Your task to perform on an android device: uninstall "AliExpress" Image 0: 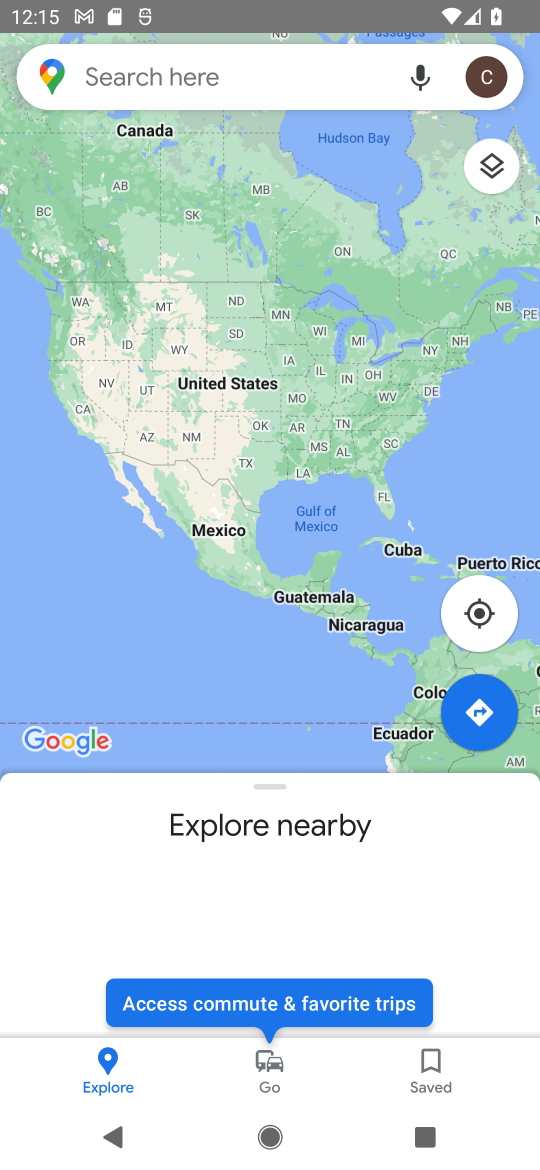
Step 0: press home button
Your task to perform on an android device: uninstall "AliExpress" Image 1: 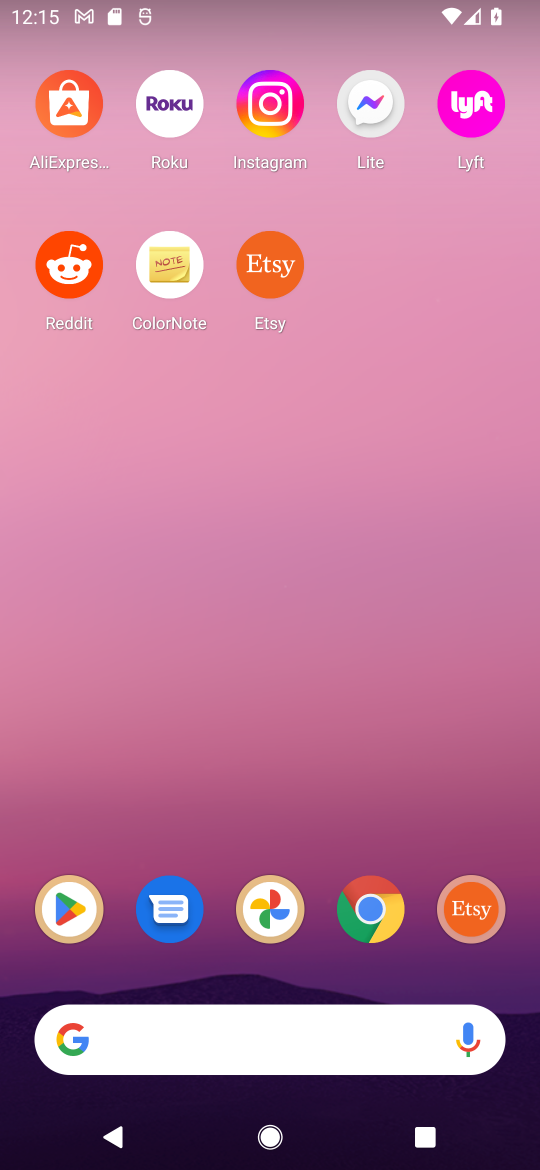
Step 1: click (65, 919)
Your task to perform on an android device: uninstall "AliExpress" Image 2: 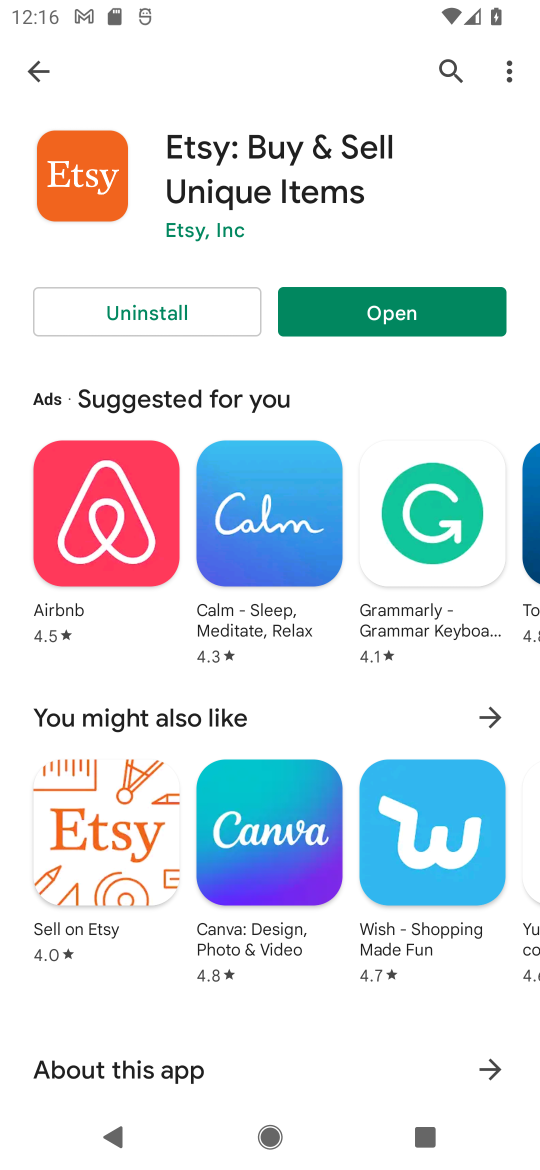
Step 2: press home button
Your task to perform on an android device: uninstall "AliExpress" Image 3: 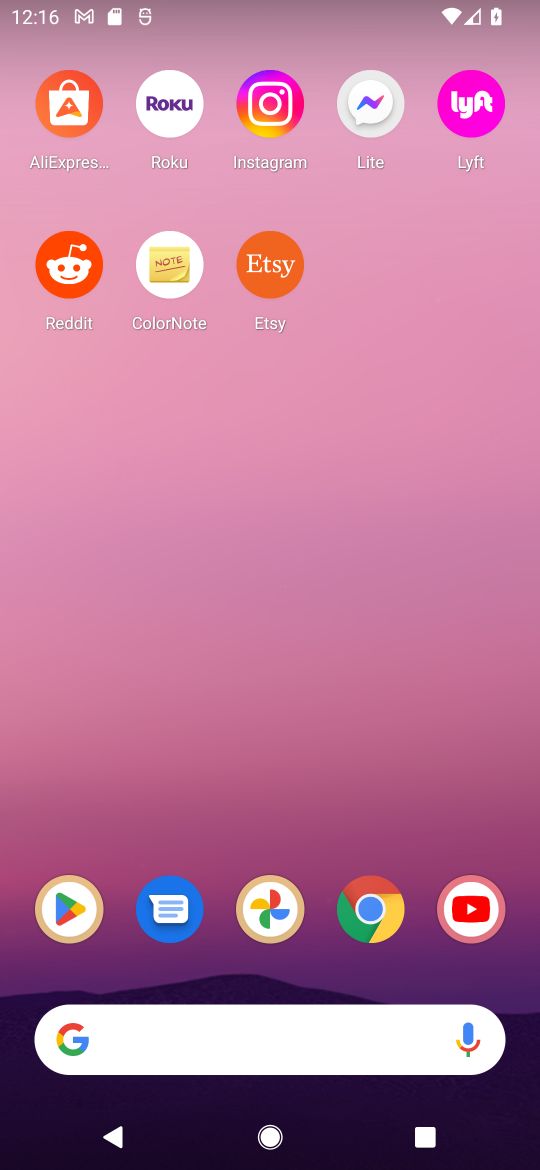
Step 3: click (67, 910)
Your task to perform on an android device: uninstall "AliExpress" Image 4: 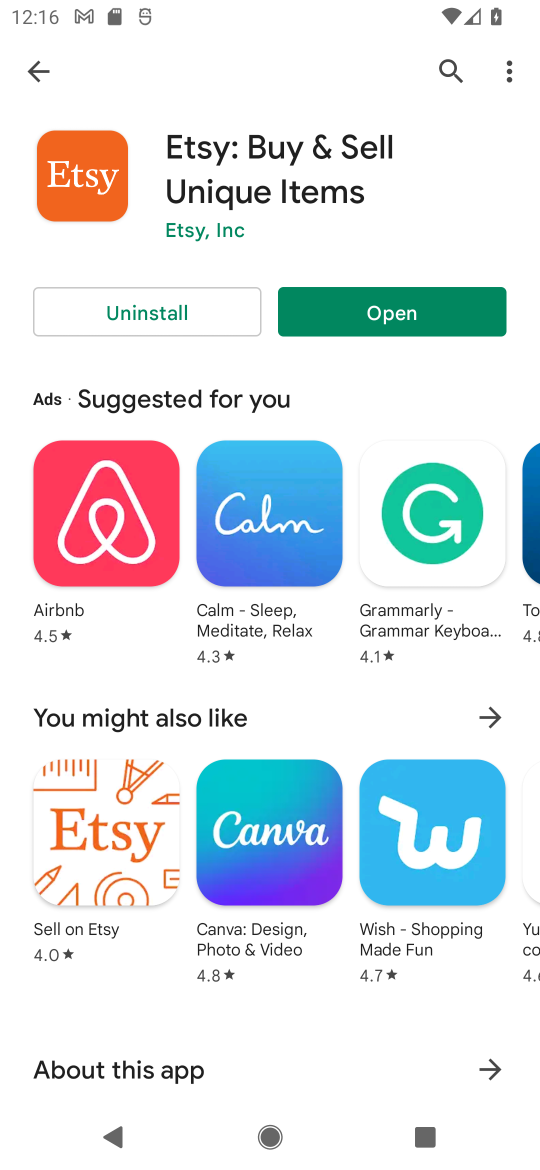
Step 4: click (28, 79)
Your task to perform on an android device: uninstall "AliExpress" Image 5: 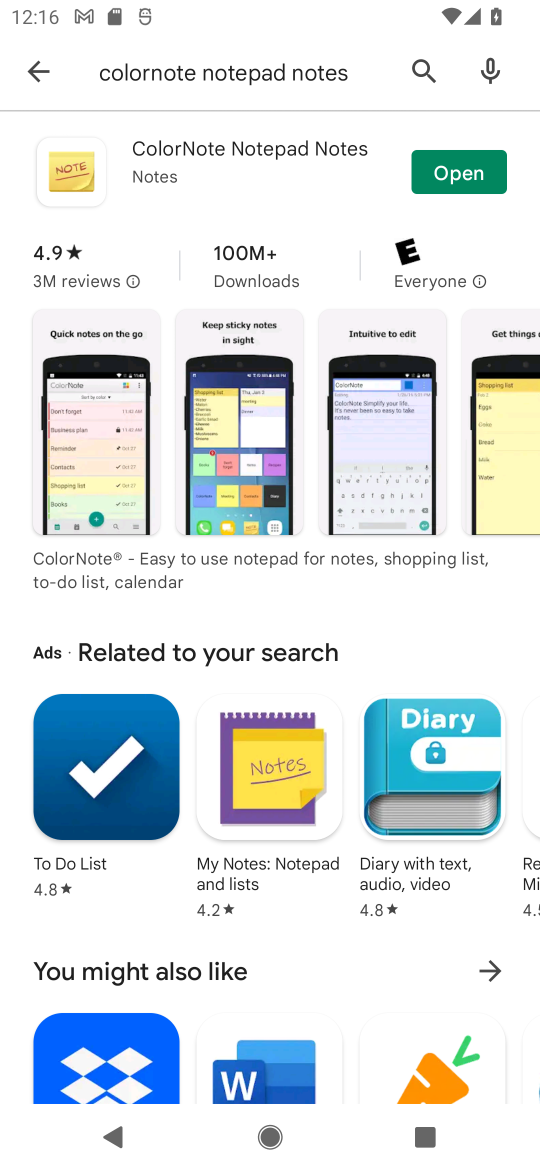
Step 5: click (34, 74)
Your task to perform on an android device: uninstall "AliExpress" Image 6: 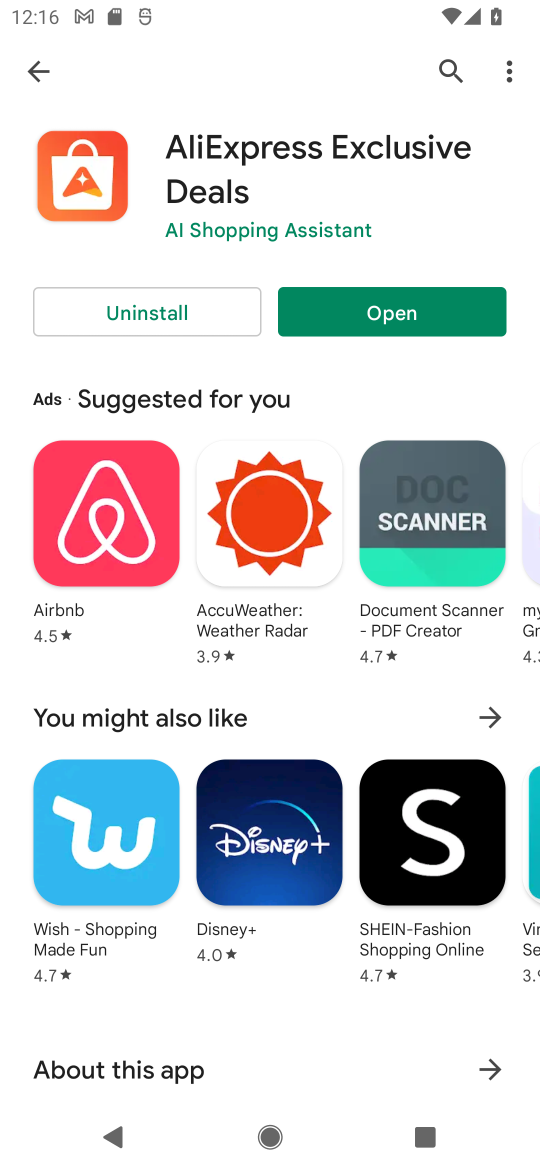
Step 6: click (38, 78)
Your task to perform on an android device: uninstall "AliExpress" Image 7: 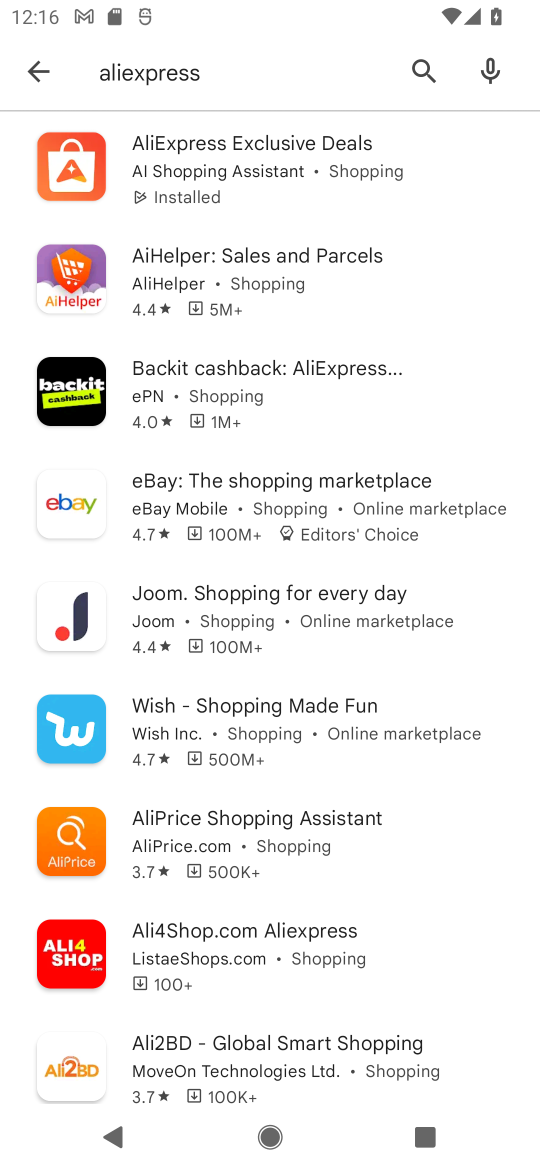
Step 7: click (39, 66)
Your task to perform on an android device: uninstall "AliExpress" Image 8: 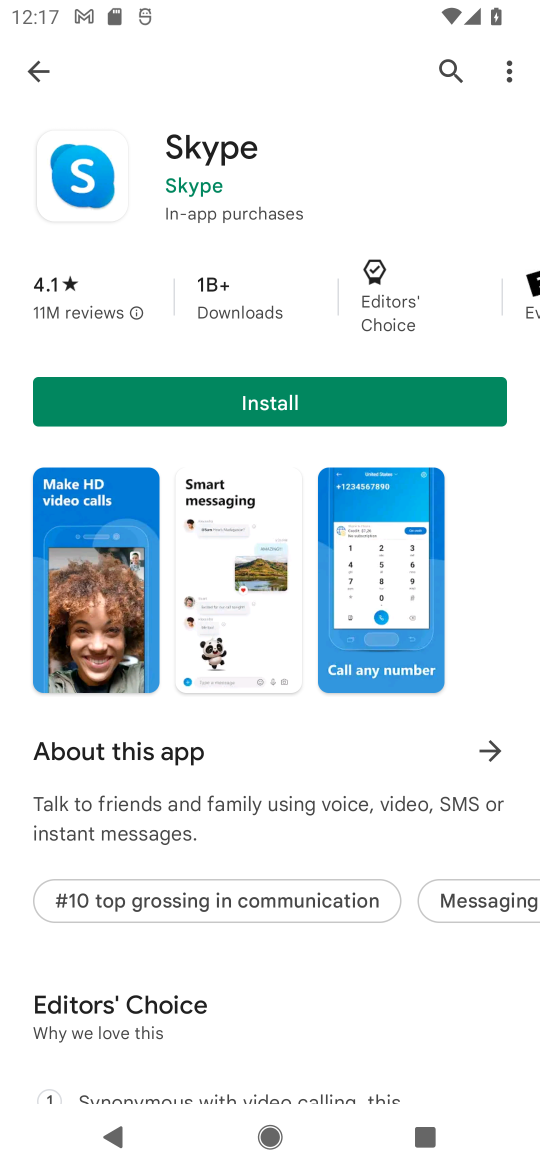
Step 8: click (43, 67)
Your task to perform on an android device: uninstall "AliExpress" Image 9: 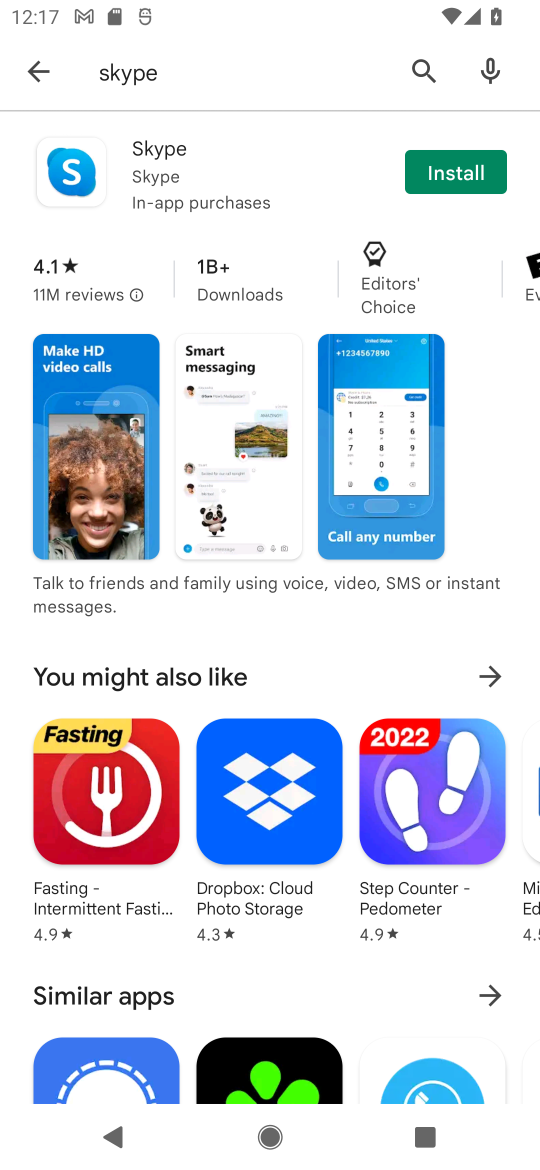
Step 9: click (412, 67)
Your task to perform on an android device: uninstall "AliExpress" Image 10: 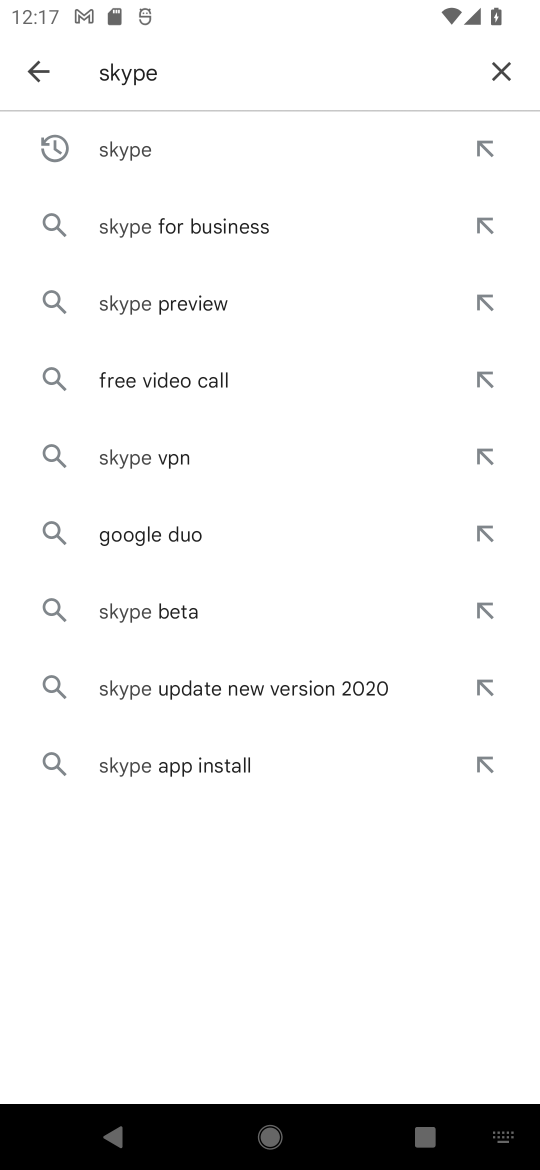
Step 10: click (503, 67)
Your task to perform on an android device: uninstall "AliExpress" Image 11: 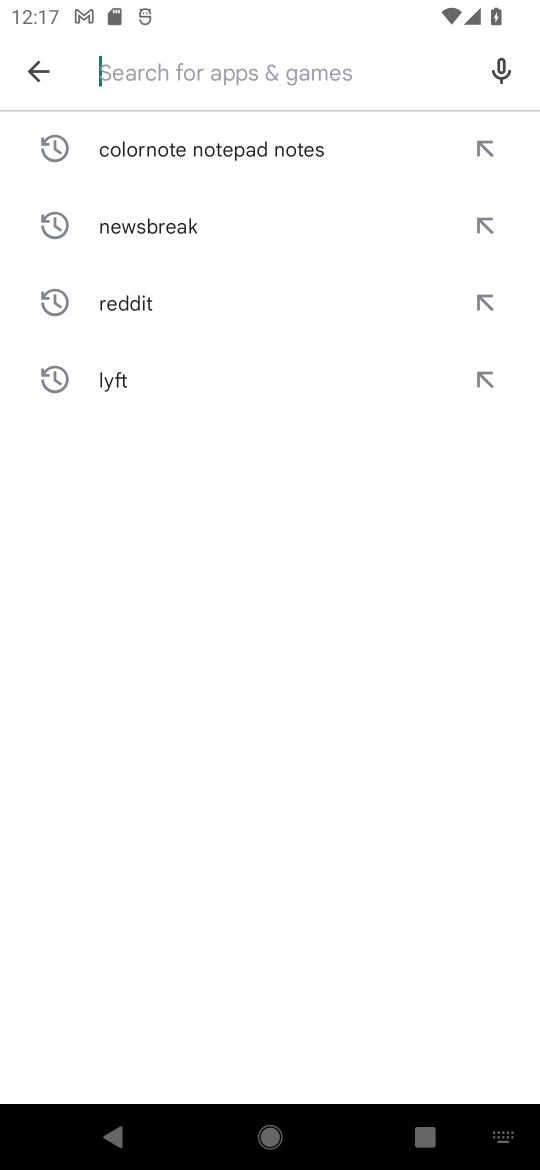
Step 11: type "AliExpress"
Your task to perform on an android device: uninstall "AliExpress" Image 12: 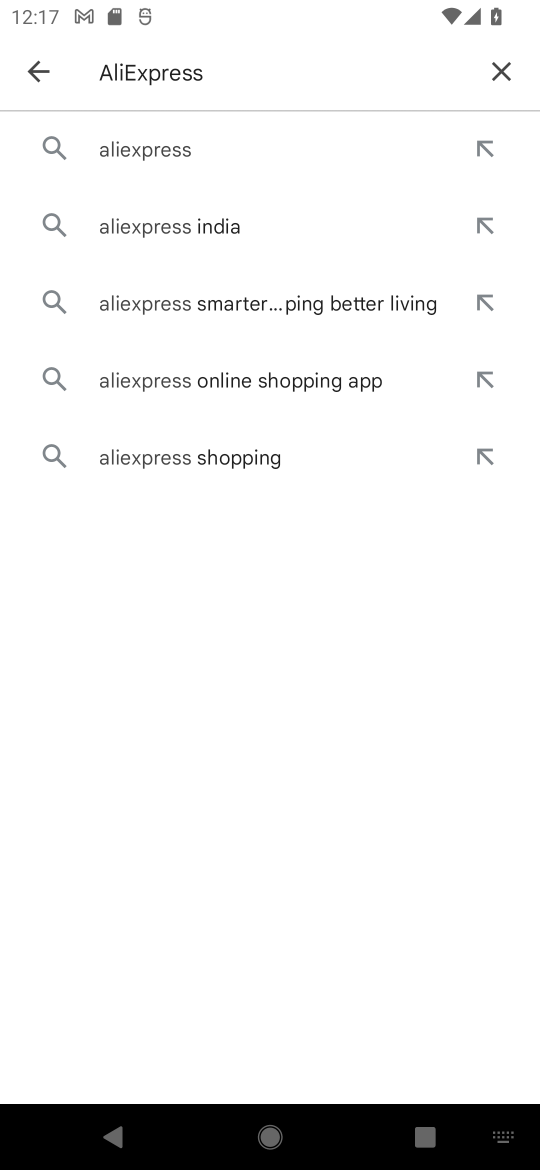
Step 12: click (165, 147)
Your task to perform on an android device: uninstall "AliExpress" Image 13: 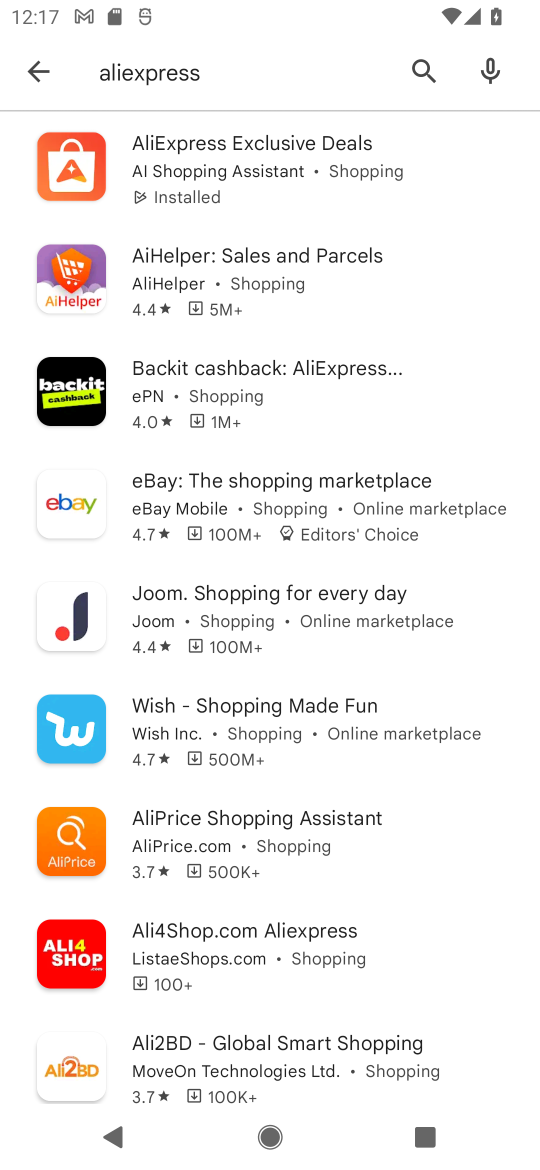
Step 13: click (195, 163)
Your task to perform on an android device: uninstall "AliExpress" Image 14: 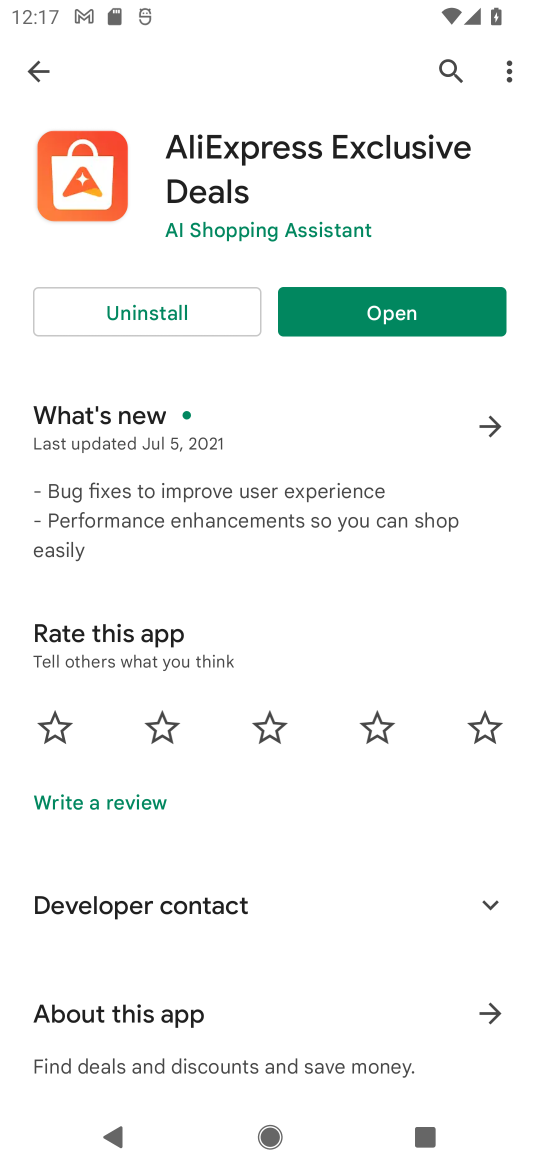
Step 14: task complete